Your task to perform on an android device: change the clock display to show seconds Image 0: 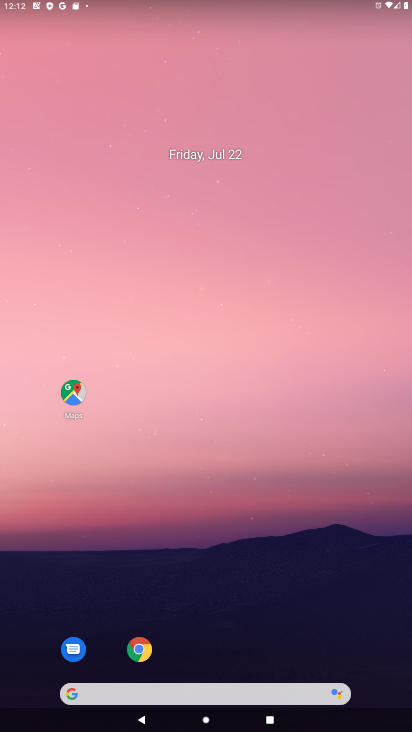
Step 0: drag from (347, 573) to (265, 22)
Your task to perform on an android device: change the clock display to show seconds Image 1: 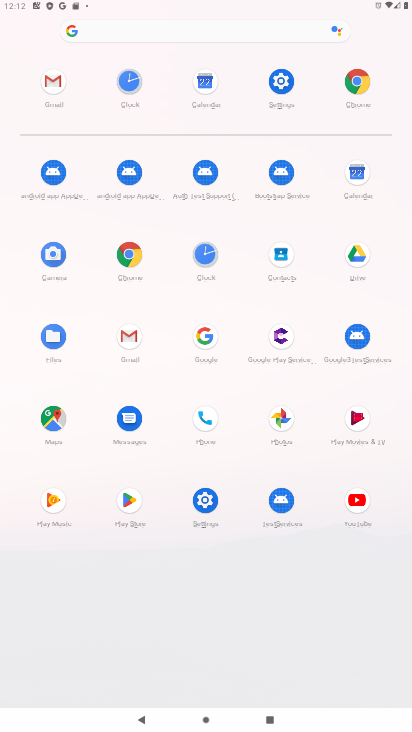
Step 1: click (130, 77)
Your task to perform on an android device: change the clock display to show seconds Image 2: 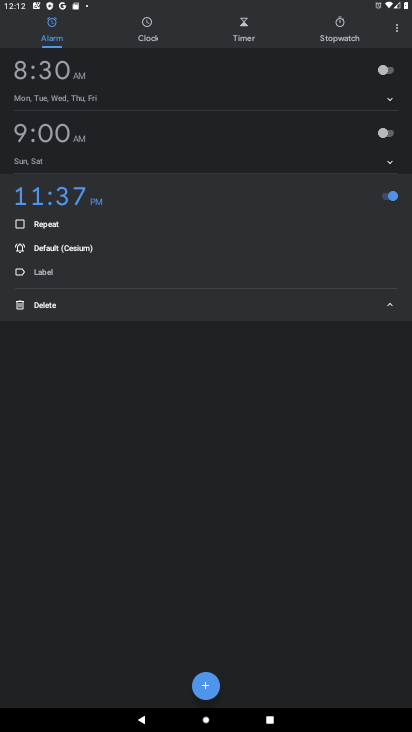
Step 2: click (395, 32)
Your task to perform on an android device: change the clock display to show seconds Image 3: 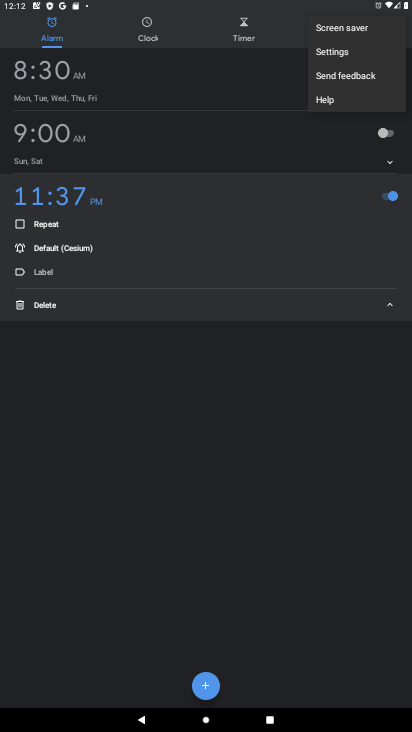
Step 3: click (364, 55)
Your task to perform on an android device: change the clock display to show seconds Image 4: 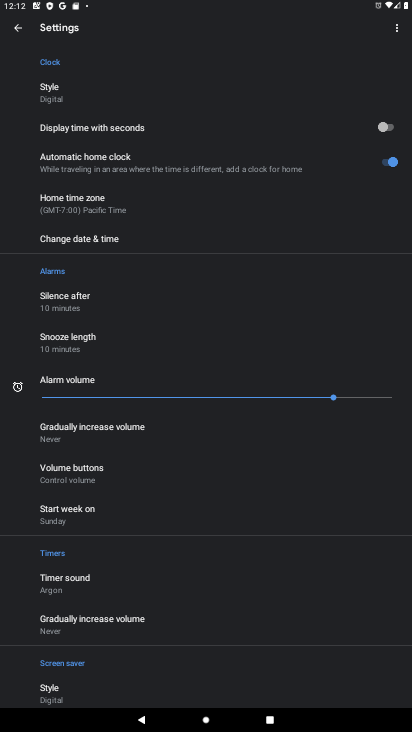
Step 4: click (83, 241)
Your task to perform on an android device: change the clock display to show seconds Image 5: 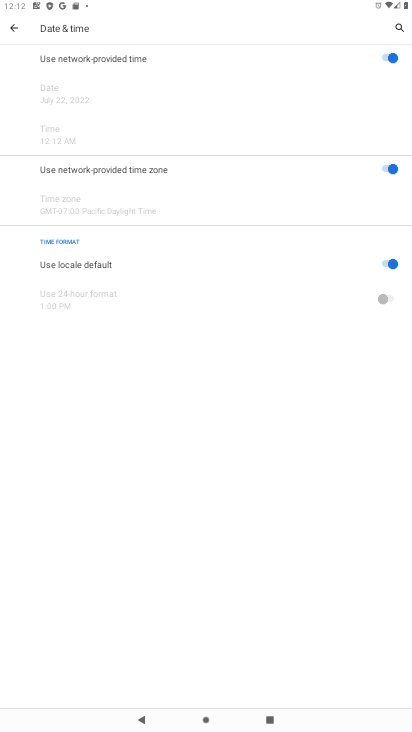
Step 5: click (8, 26)
Your task to perform on an android device: change the clock display to show seconds Image 6: 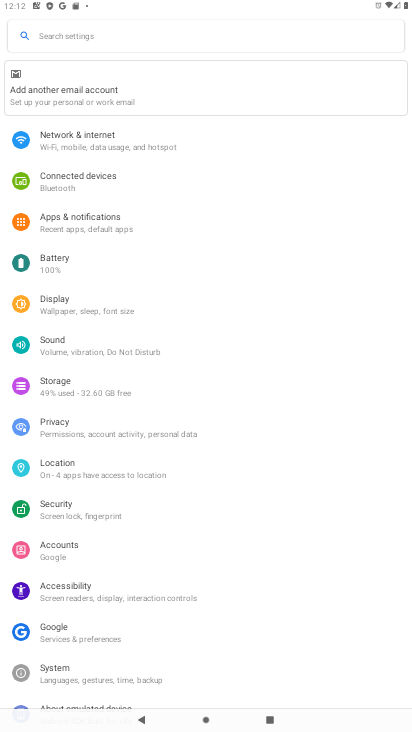
Step 6: press back button
Your task to perform on an android device: change the clock display to show seconds Image 7: 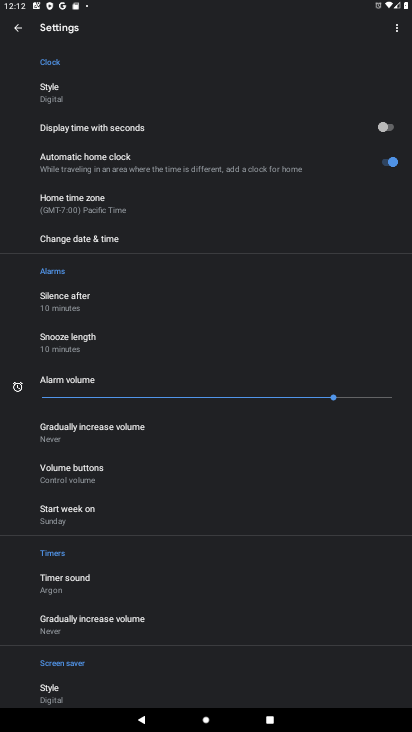
Step 7: click (389, 128)
Your task to perform on an android device: change the clock display to show seconds Image 8: 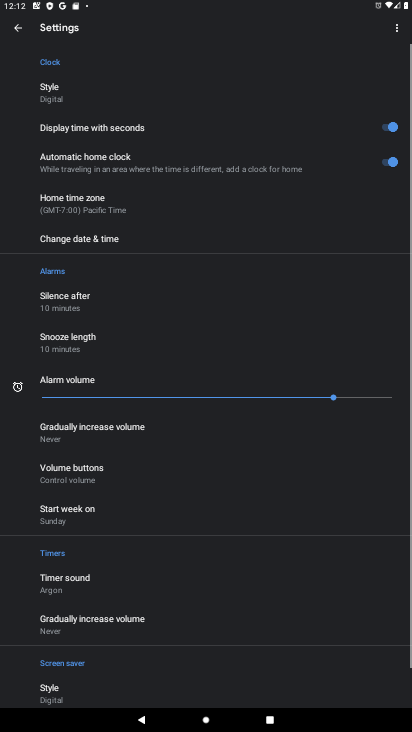
Step 8: task complete